Your task to perform on an android device: change the upload size in google photos Image 0: 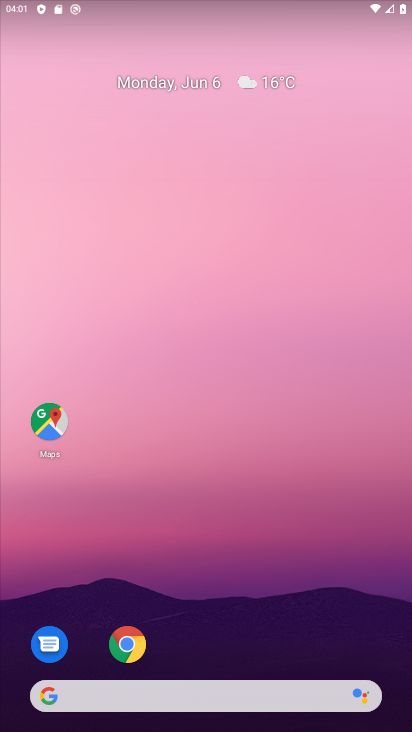
Step 0: drag from (376, 617) to (350, 199)
Your task to perform on an android device: change the upload size in google photos Image 1: 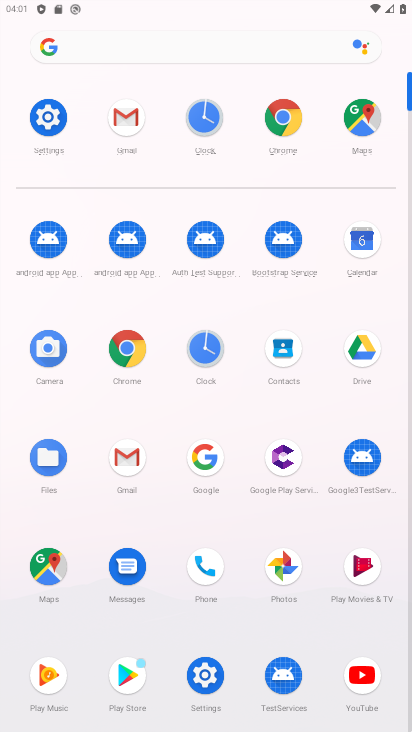
Step 1: click (291, 562)
Your task to perform on an android device: change the upload size in google photos Image 2: 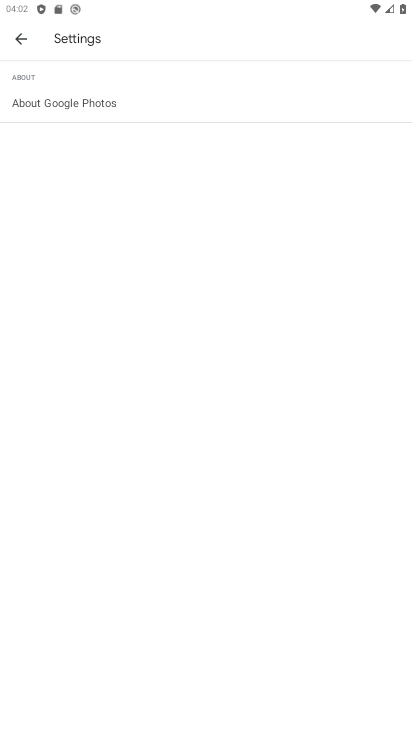
Step 2: click (12, 39)
Your task to perform on an android device: change the upload size in google photos Image 3: 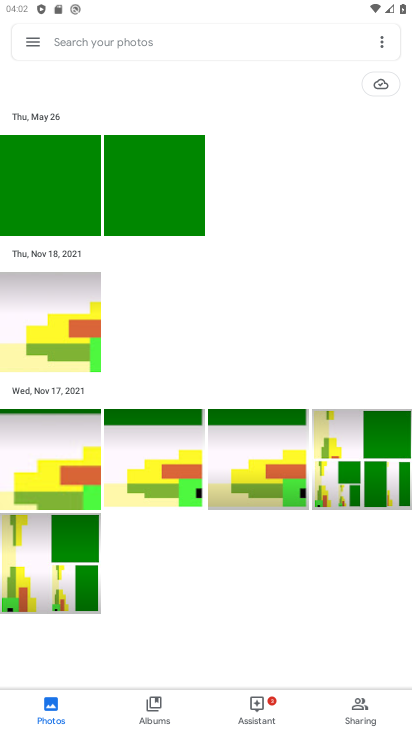
Step 3: click (35, 39)
Your task to perform on an android device: change the upload size in google photos Image 4: 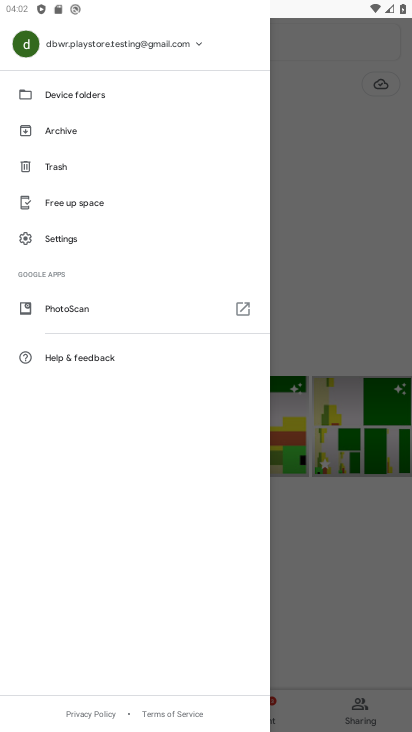
Step 4: click (52, 235)
Your task to perform on an android device: change the upload size in google photos Image 5: 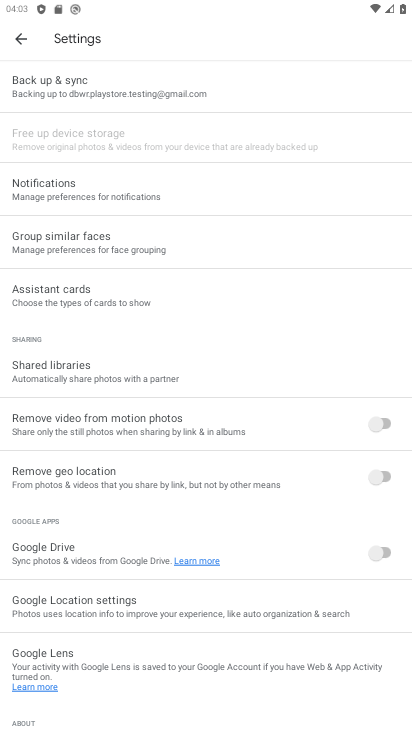
Step 5: click (74, 87)
Your task to perform on an android device: change the upload size in google photos Image 6: 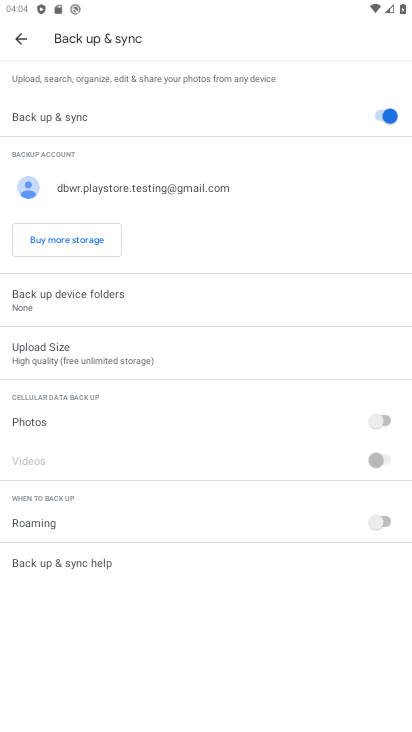
Step 6: click (75, 300)
Your task to perform on an android device: change the upload size in google photos Image 7: 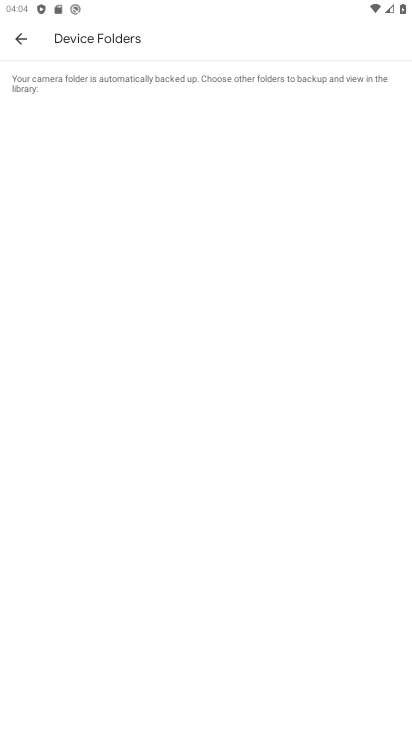
Step 7: click (21, 33)
Your task to perform on an android device: change the upload size in google photos Image 8: 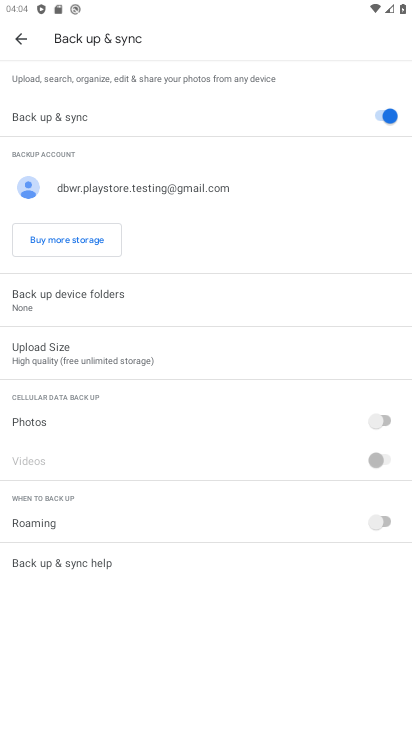
Step 8: click (92, 114)
Your task to perform on an android device: change the upload size in google photos Image 9: 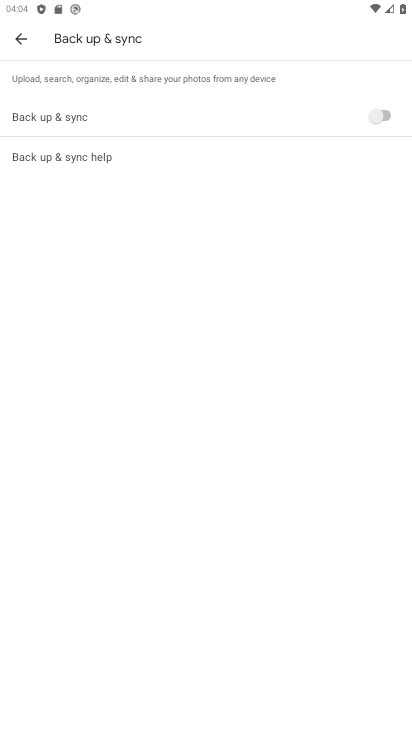
Step 9: click (22, 38)
Your task to perform on an android device: change the upload size in google photos Image 10: 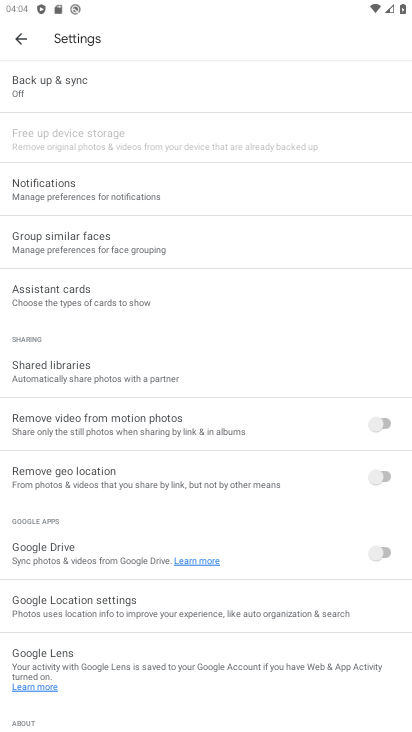
Step 10: click (33, 81)
Your task to perform on an android device: change the upload size in google photos Image 11: 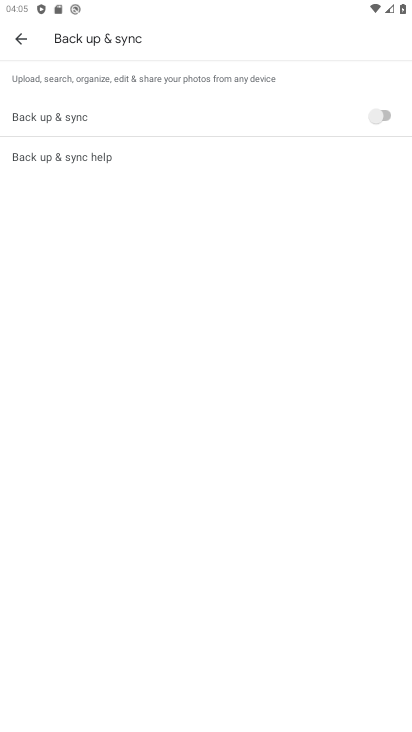
Step 11: task complete